Your task to perform on an android device: Open ESPN.com Image 0: 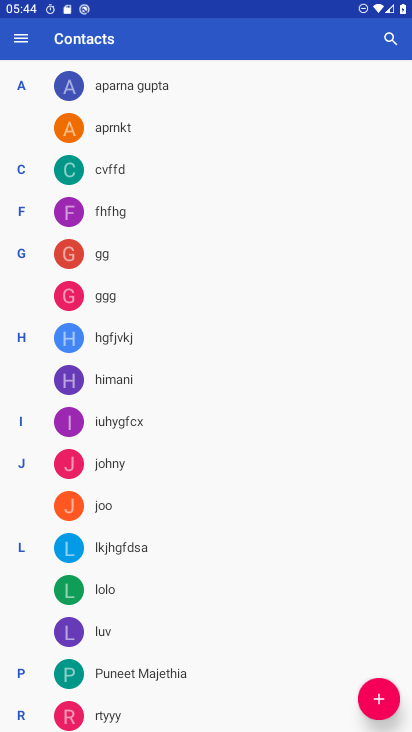
Step 0: press home button
Your task to perform on an android device: Open ESPN.com Image 1: 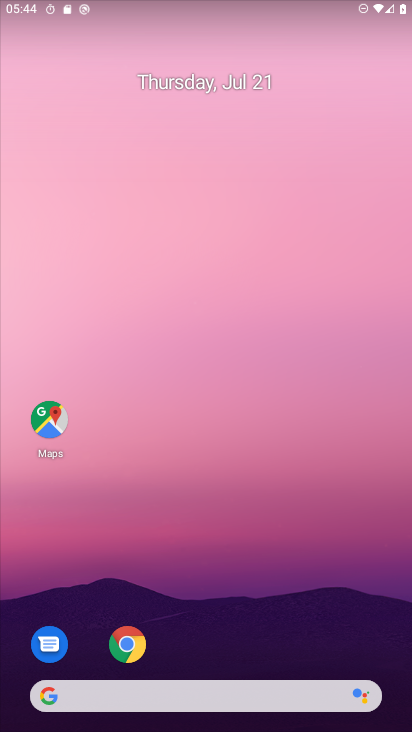
Step 1: click (127, 648)
Your task to perform on an android device: Open ESPN.com Image 2: 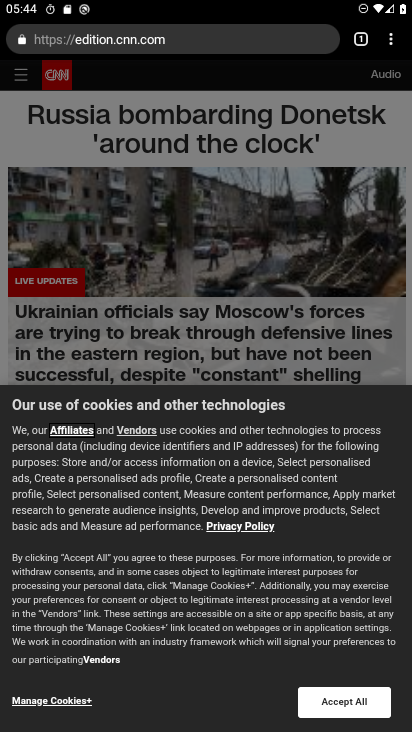
Step 2: click (116, 27)
Your task to perform on an android device: Open ESPN.com Image 3: 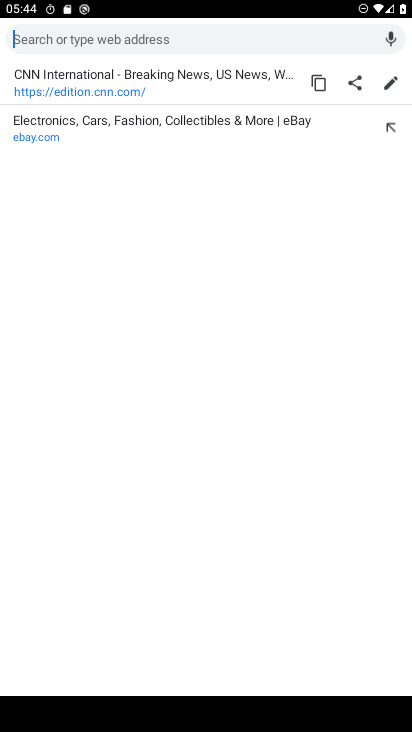
Step 3: type "www.espn.com"
Your task to perform on an android device: Open ESPN.com Image 4: 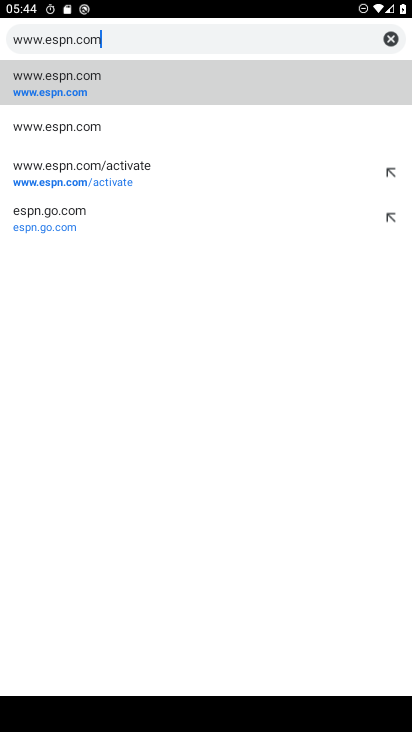
Step 4: click (57, 90)
Your task to perform on an android device: Open ESPN.com Image 5: 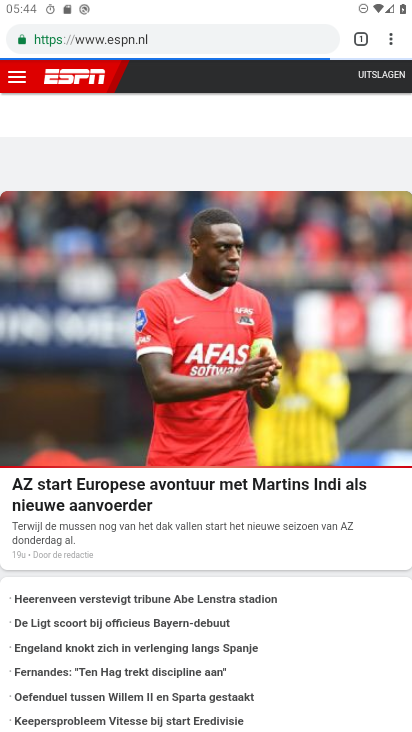
Step 5: task complete